Your task to perform on an android device: turn on sleep mode Image 0: 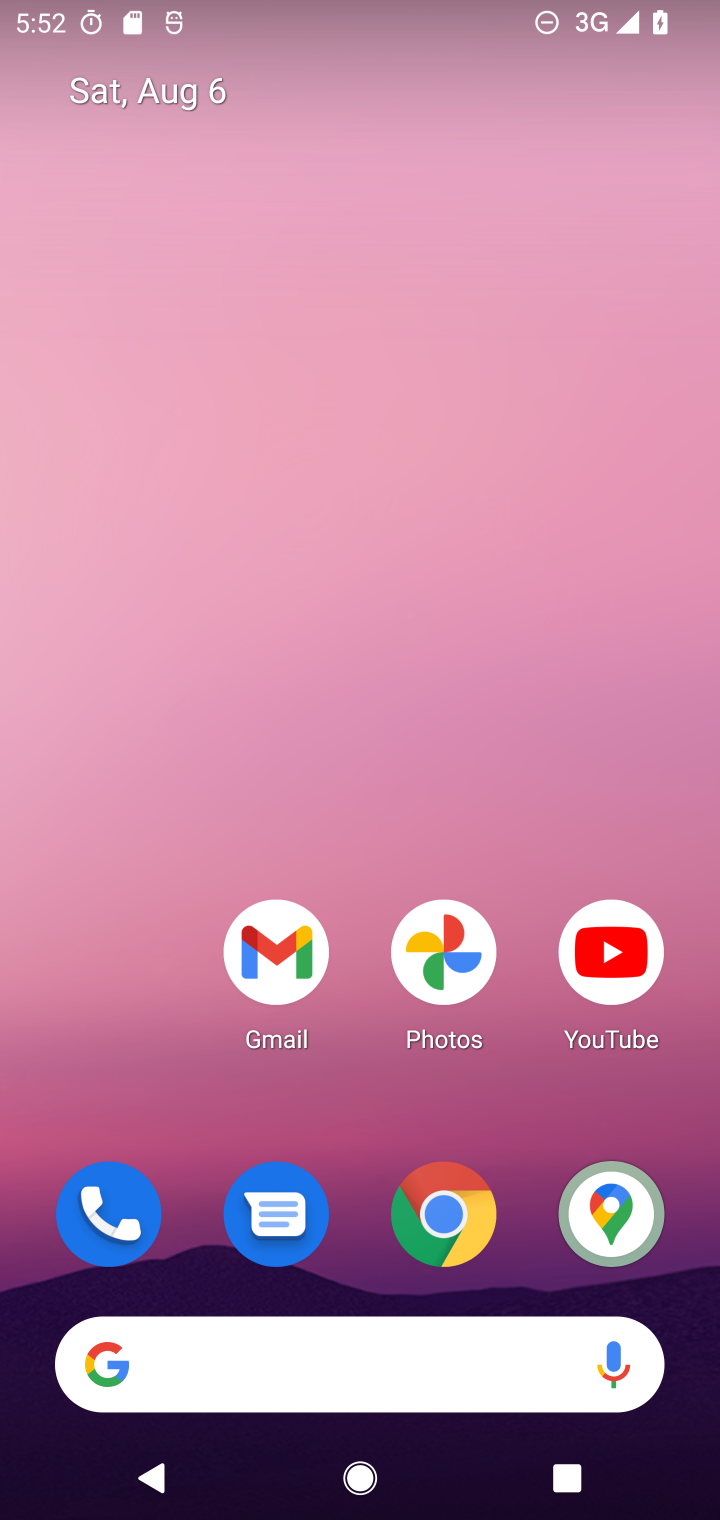
Step 0: drag from (351, 207) to (384, 20)
Your task to perform on an android device: turn on sleep mode Image 1: 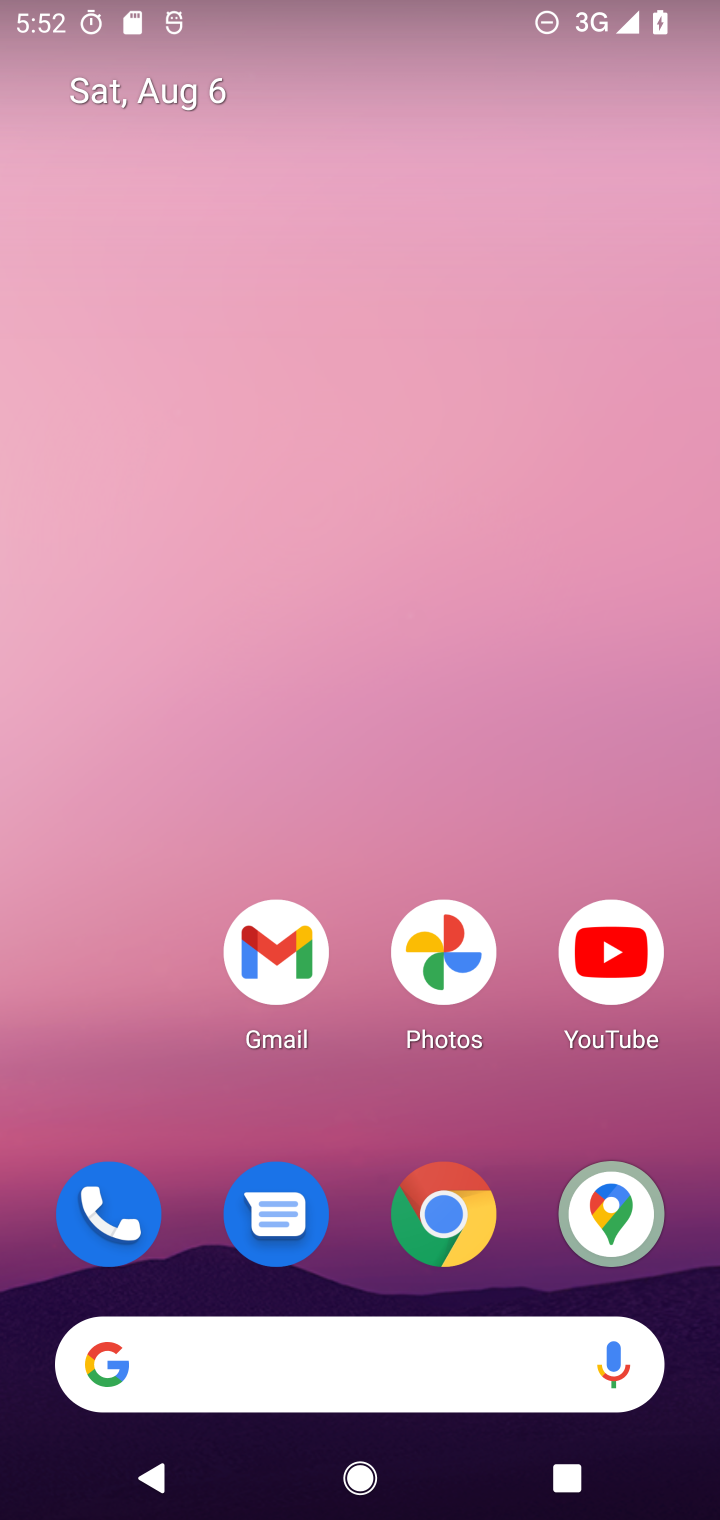
Step 1: drag from (346, 1112) to (396, 448)
Your task to perform on an android device: turn on sleep mode Image 2: 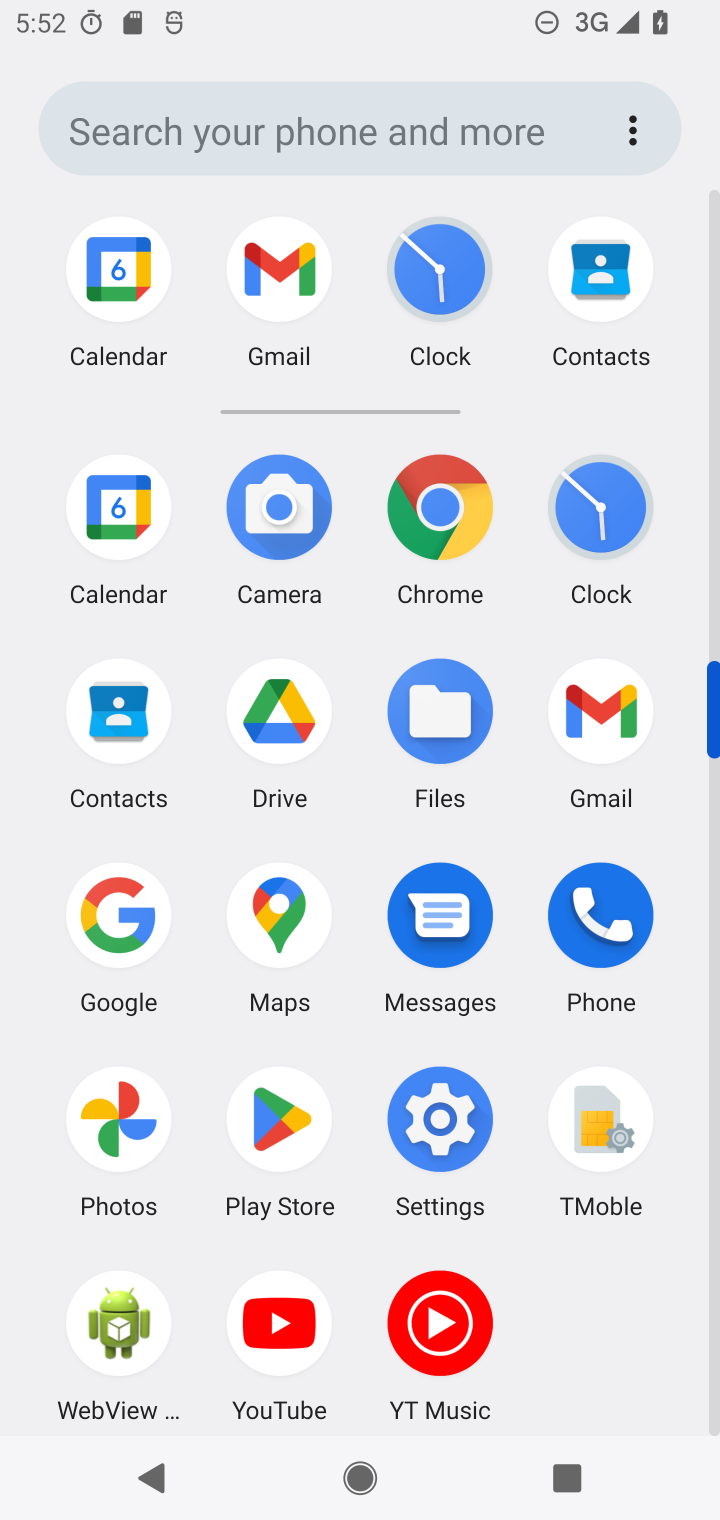
Step 2: click (419, 1112)
Your task to perform on an android device: turn on sleep mode Image 3: 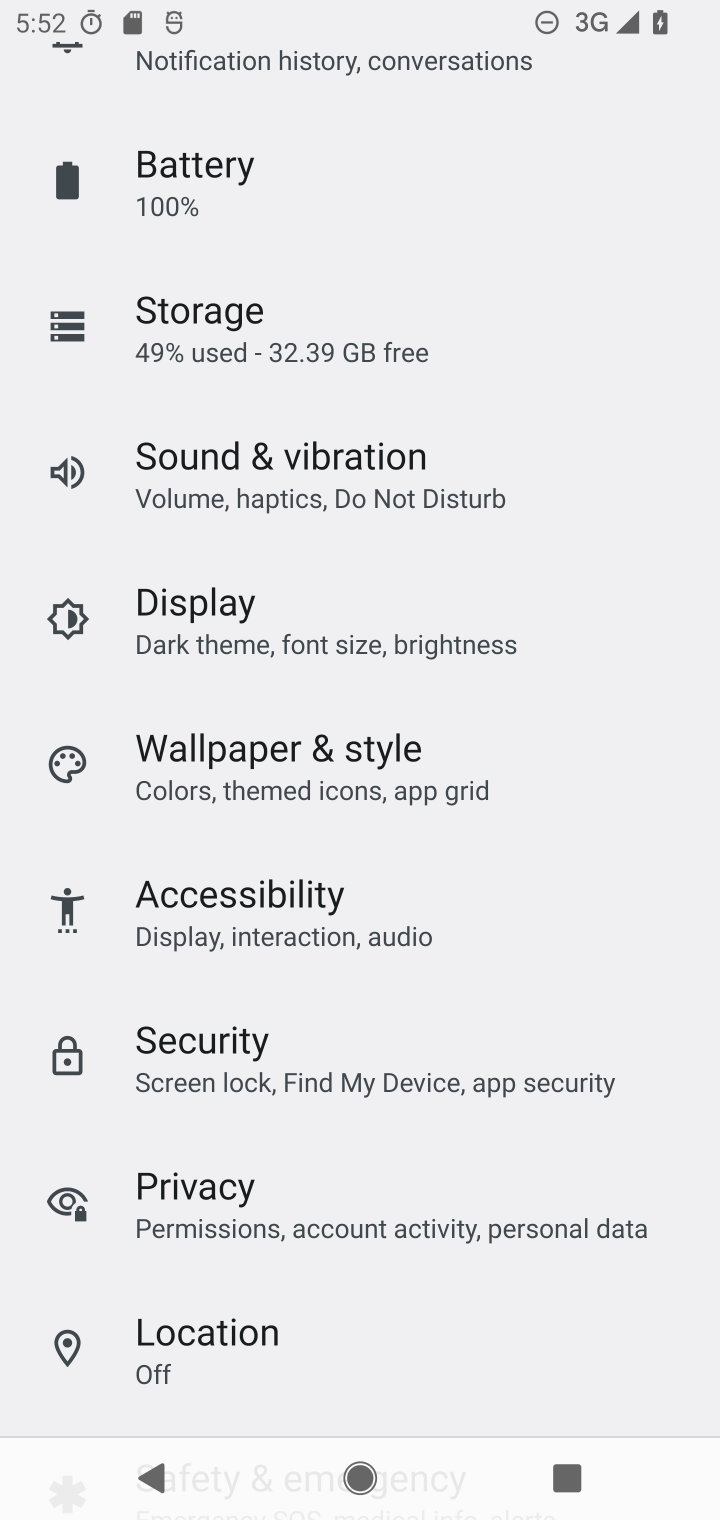
Step 3: task complete